Your task to perform on an android device: Open Google Chrome and click the shortcut for Amazon.com Image 0: 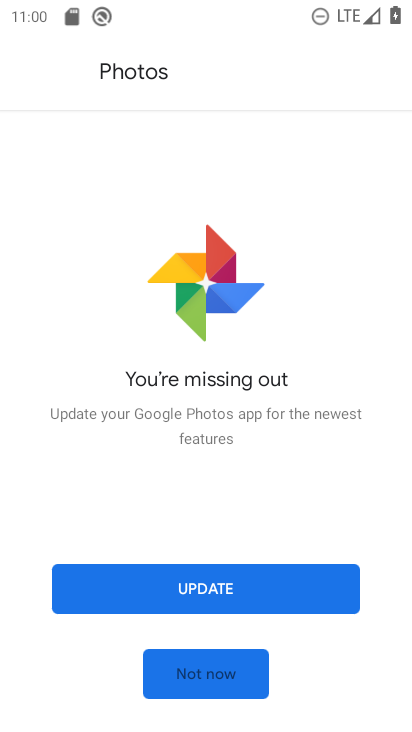
Step 0: press home button
Your task to perform on an android device: Open Google Chrome and click the shortcut for Amazon.com Image 1: 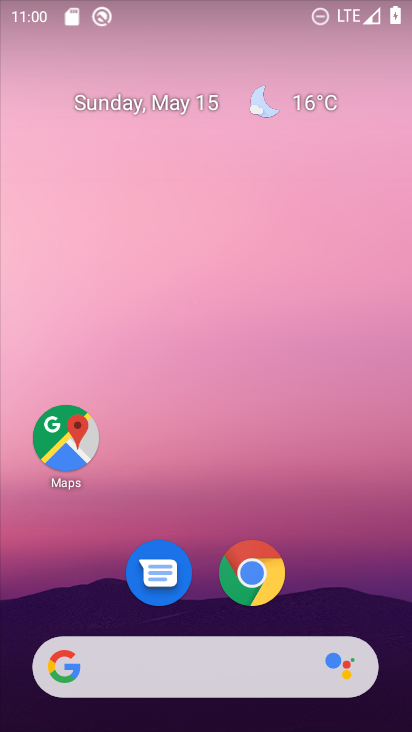
Step 1: drag from (357, 595) to (343, 61)
Your task to perform on an android device: Open Google Chrome and click the shortcut for Amazon.com Image 2: 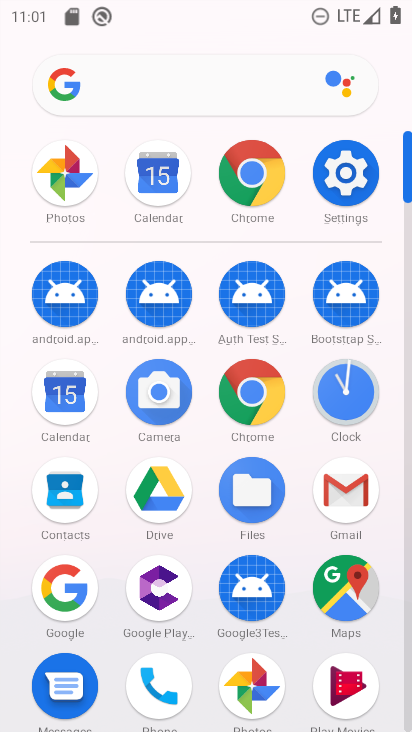
Step 2: click (254, 163)
Your task to perform on an android device: Open Google Chrome and click the shortcut for Amazon.com Image 3: 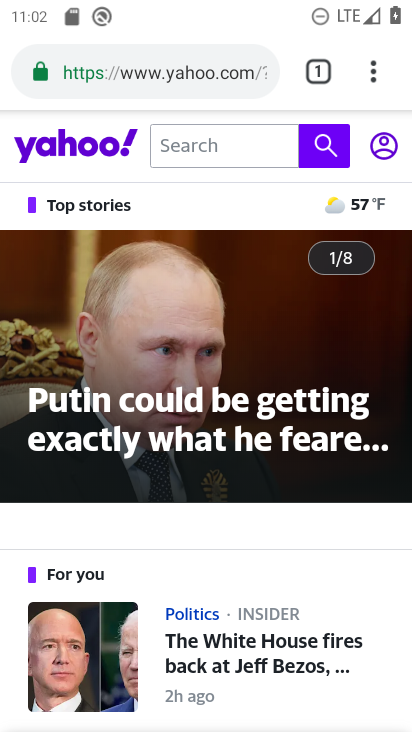
Step 3: click (210, 73)
Your task to perform on an android device: Open Google Chrome and click the shortcut for Amazon.com Image 4: 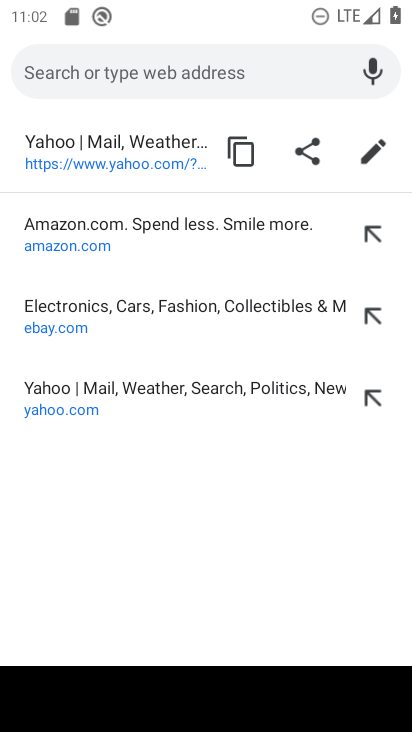
Step 4: type " Amazon.com"
Your task to perform on an android device: Open Google Chrome and click the shortcut for Amazon.com Image 5: 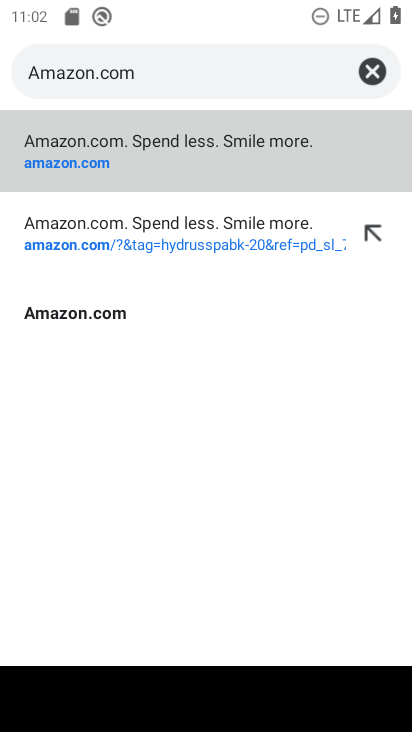
Step 5: click (141, 160)
Your task to perform on an android device: Open Google Chrome and click the shortcut for Amazon.com Image 6: 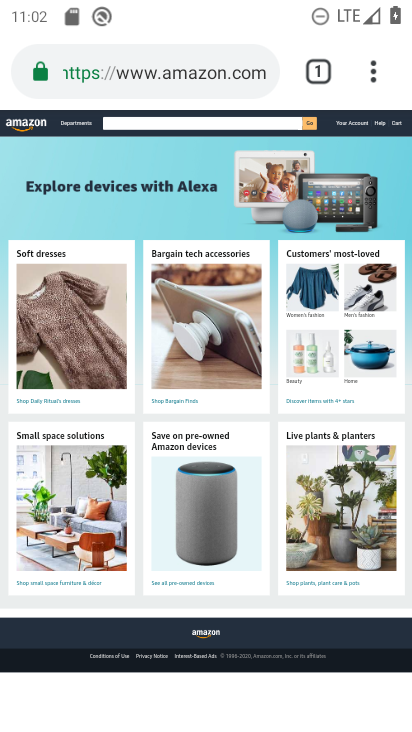
Step 6: task complete